Your task to perform on an android device: open a new tab in the chrome app Image 0: 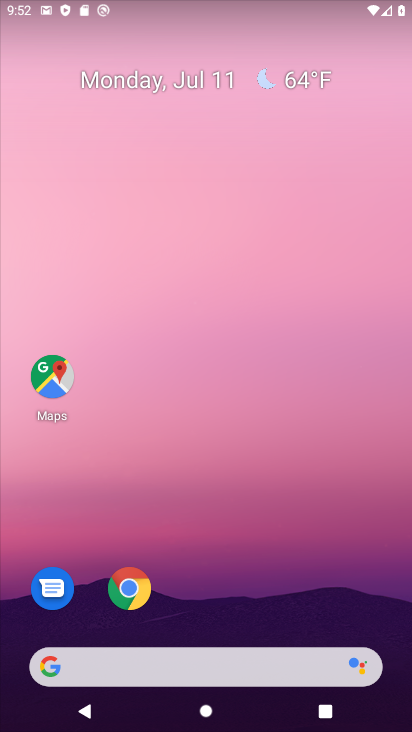
Step 0: drag from (184, 642) to (240, 84)
Your task to perform on an android device: open a new tab in the chrome app Image 1: 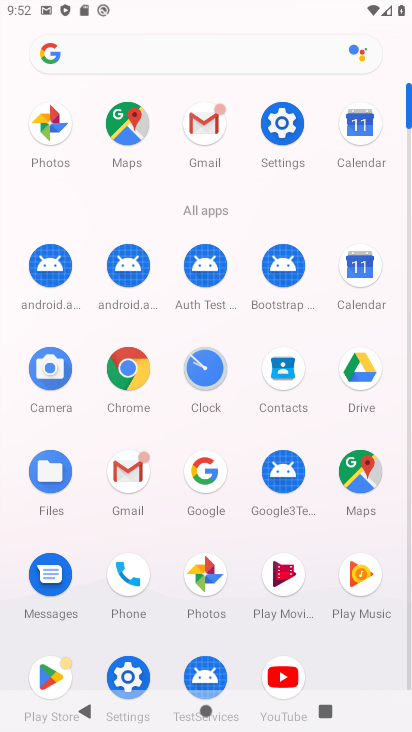
Step 1: click (128, 386)
Your task to perform on an android device: open a new tab in the chrome app Image 2: 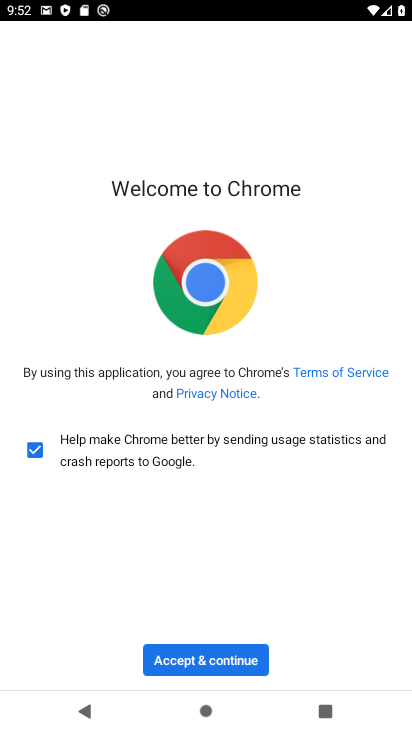
Step 2: click (191, 651)
Your task to perform on an android device: open a new tab in the chrome app Image 3: 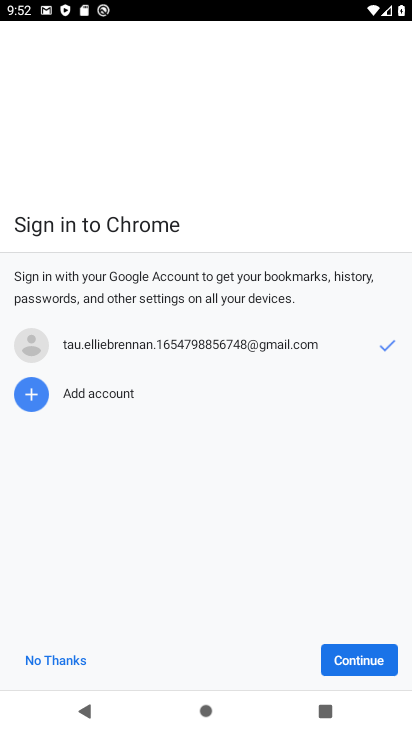
Step 3: click (371, 656)
Your task to perform on an android device: open a new tab in the chrome app Image 4: 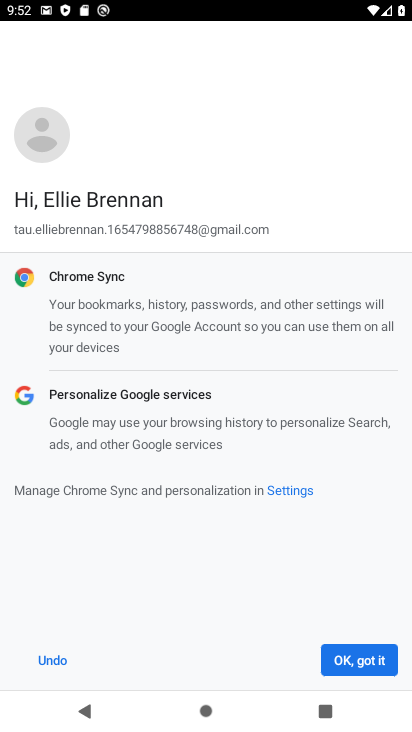
Step 4: click (371, 656)
Your task to perform on an android device: open a new tab in the chrome app Image 5: 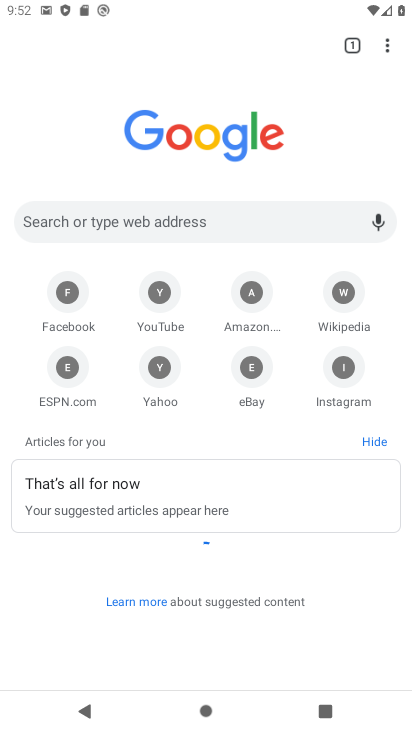
Step 5: task complete